Your task to perform on an android device: turn on bluetooth scan Image 0: 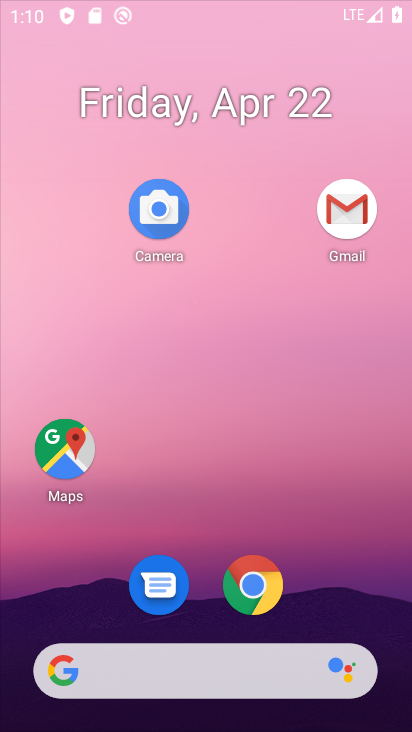
Step 0: drag from (348, 594) to (273, 224)
Your task to perform on an android device: turn on bluetooth scan Image 1: 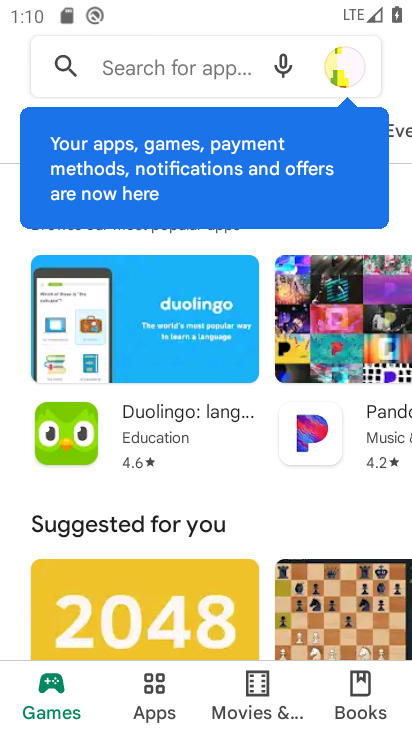
Step 1: press home button
Your task to perform on an android device: turn on bluetooth scan Image 2: 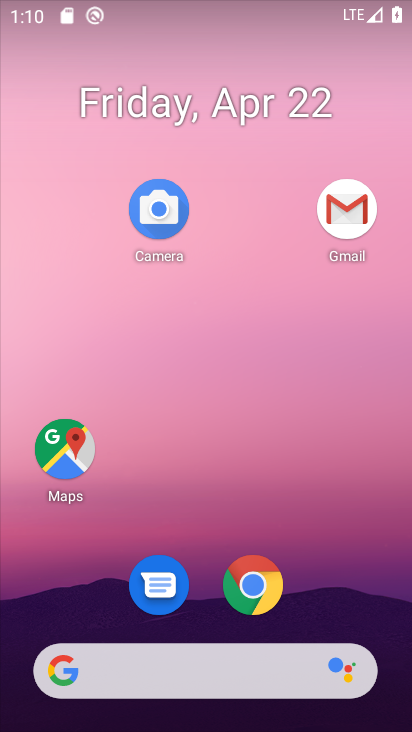
Step 2: drag from (292, 548) to (235, 144)
Your task to perform on an android device: turn on bluetooth scan Image 3: 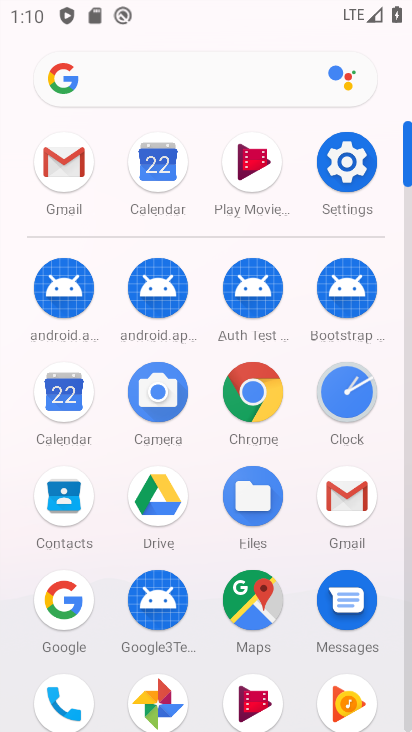
Step 3: click (353, 136)
Your task to perform on an android device: turn on bluetooth scan Image 4: 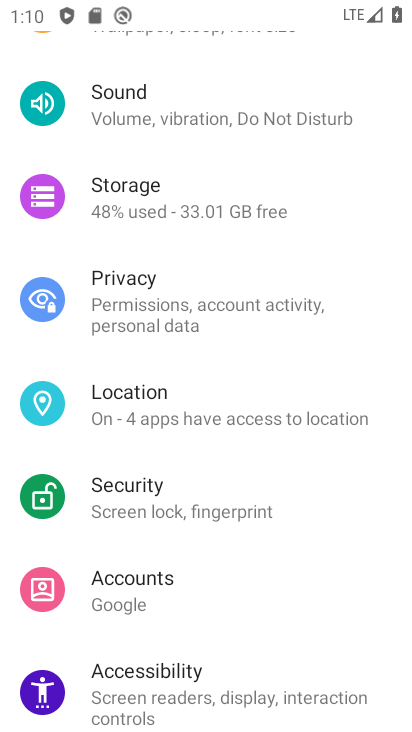
Step 4: click (259, 412)
Your task to perform on an android device: turn on bluetooth scan Image 5: 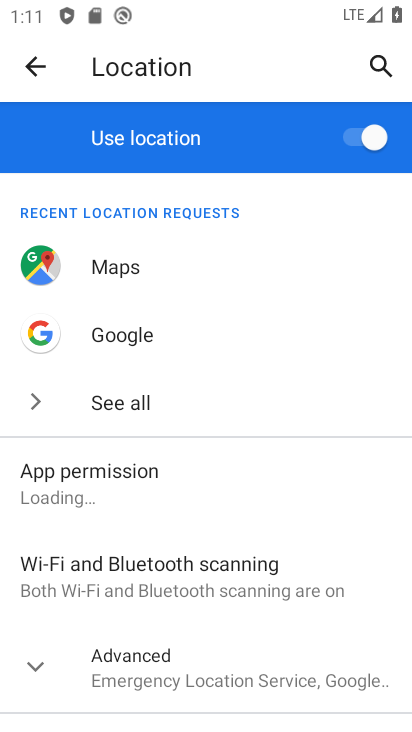
Step 5: click (257, 589)
Your task to perform on an android device: turn on bluetooth scan Image 6: 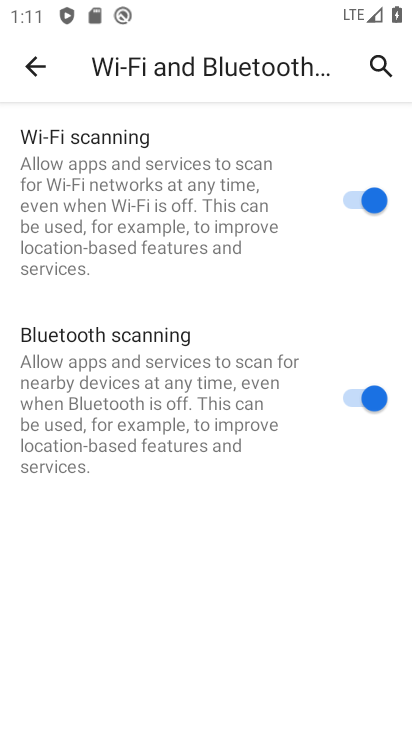
Step 6: task complete